Your task to perform on an android device: Open my contact list Image 0: 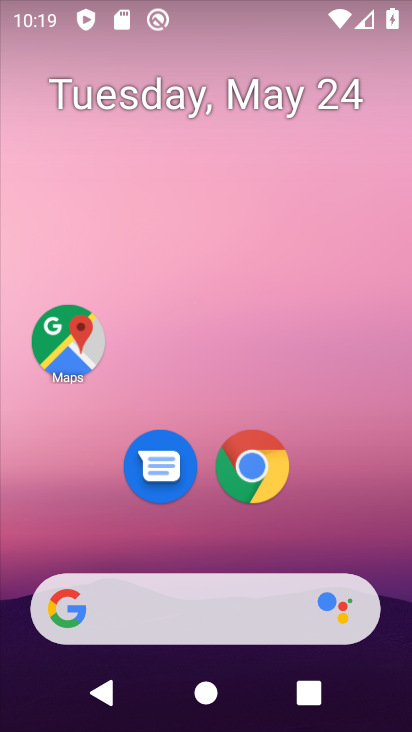
Step 0: drag from (387, 550) to (364, 153)
Your task to perform on an android device: Open my contact list Image 1: 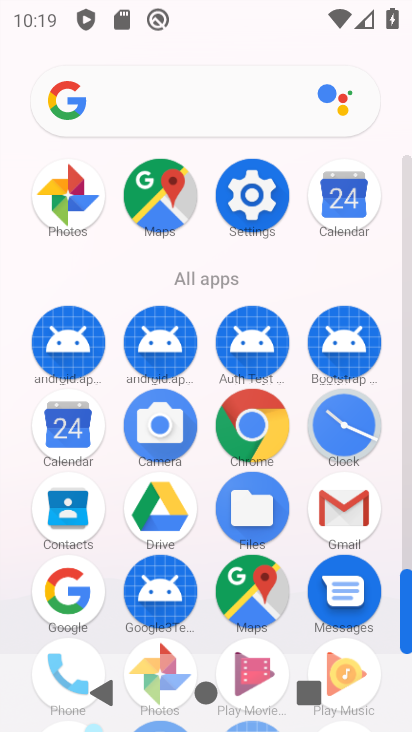
Step 1: click (64, 515)
Your task to perform on an android device: Open my contact list Image 2: 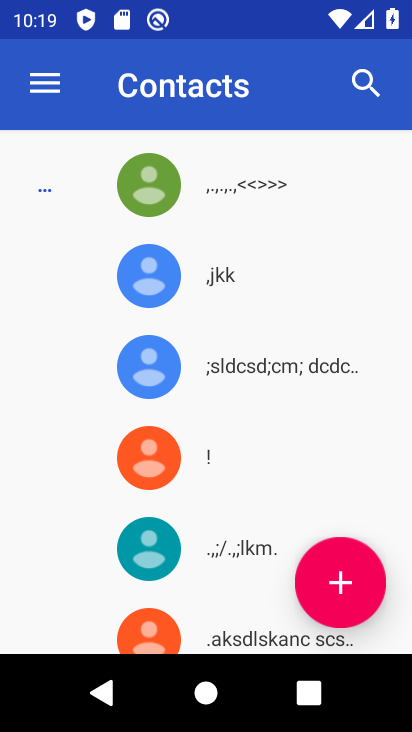
Step 2: task complete